Your task to perform on an android device: Open Google Chrome and click the shortcut for Amazon.com Image 0: 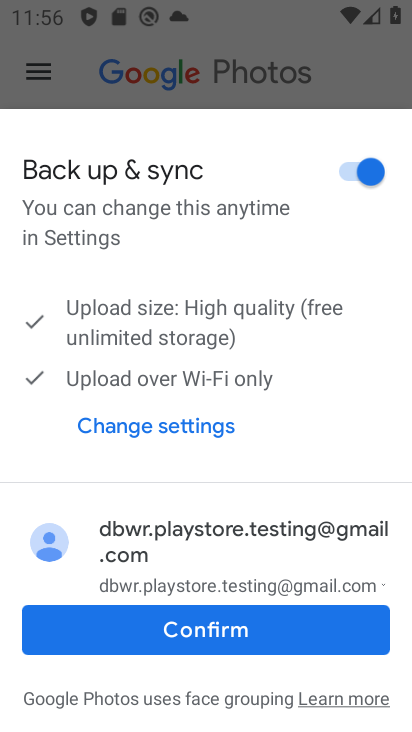
Step 0: press home button
Your task to perform on an android device: Open Google Chrome and click the shortcut for Amazon.com Image 1: 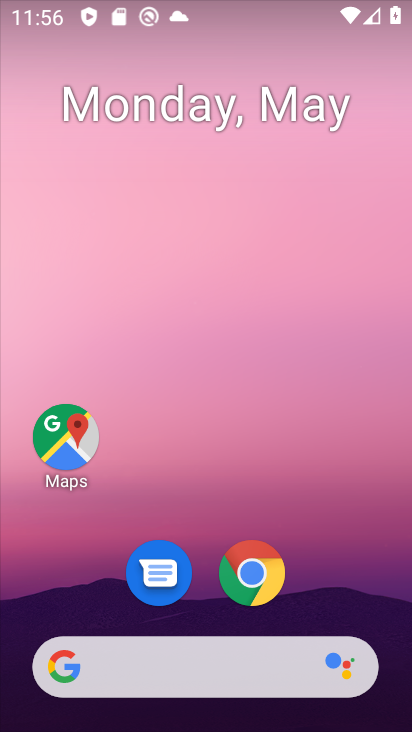
Step 1: drag from (366, 528) to (354, 72)
Your task to perform on an android device: Open Google Chrome and click the shortcut for Amazon.com Image 2: 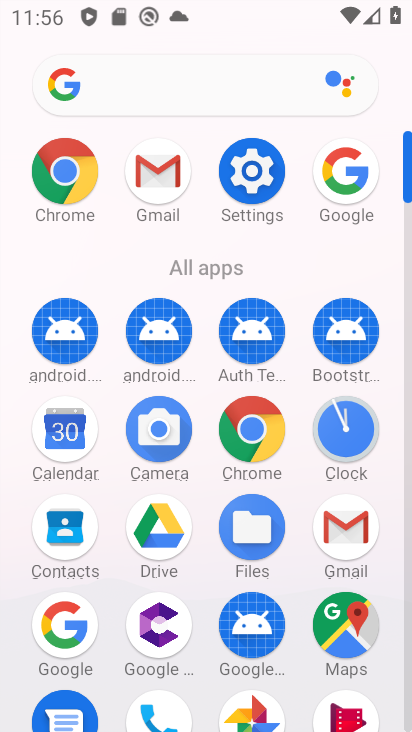
Step 2: click (50, 148)
Your task to perform on an android device: Open Google Chrome and click the shortcut for Amazon.com Image 3: 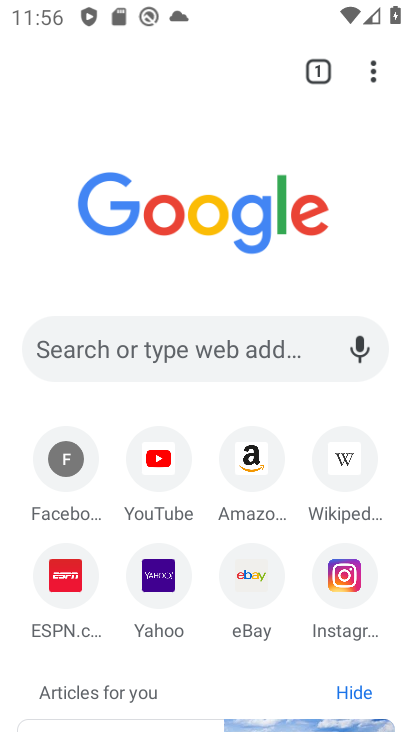
Step 3: click (238, 449)
Your task to perform on an android device: Open Google Chrome and click the shortcut for Amazon.com Image 4: 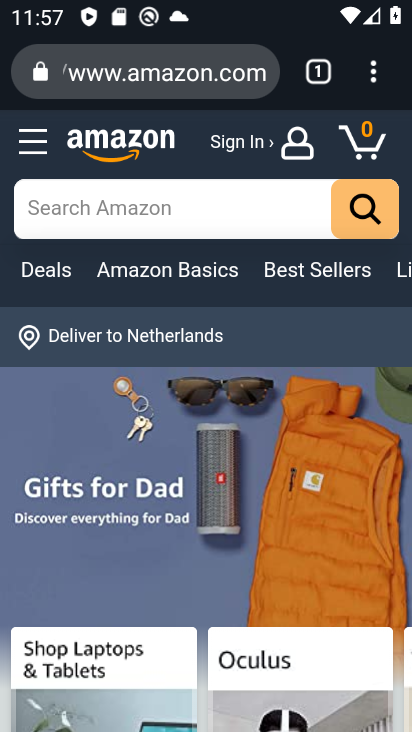
Step 4: drag from (367, 74) to (227, 440)
Your task to perform on an android device: Open Google Chrome and click the shortcut for Amazon.com Image 5: 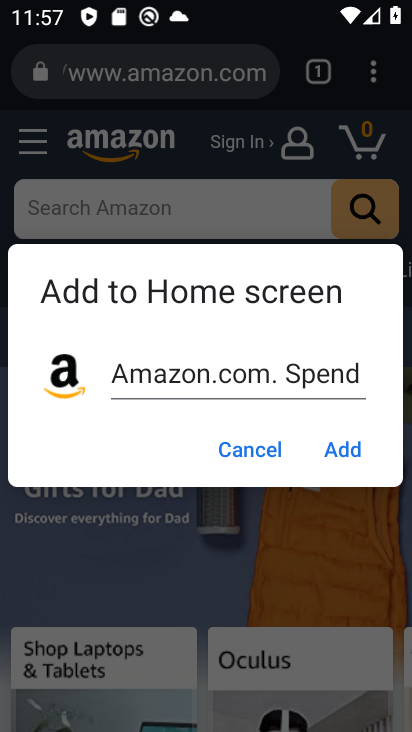
Step 5: click (335, 431)
Your task to perform on an android device: Open Google Chrome and click the shortcut for Amazon.com Image 6: 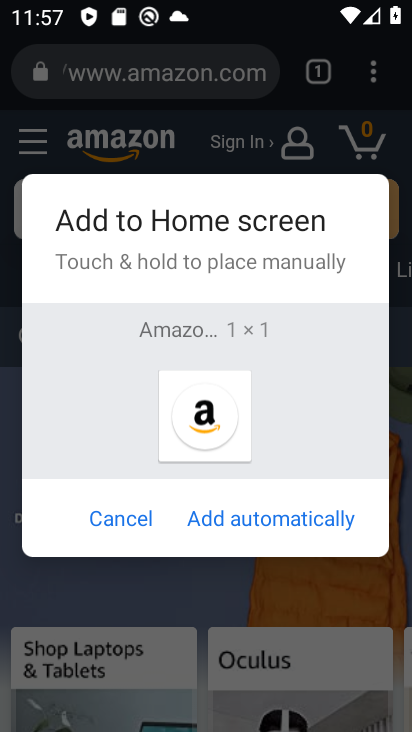
Step 6: click (260, 530)
Your task to perform on an android device: Open Google Chrome and click the shortcut for Amazon.com Image 7: 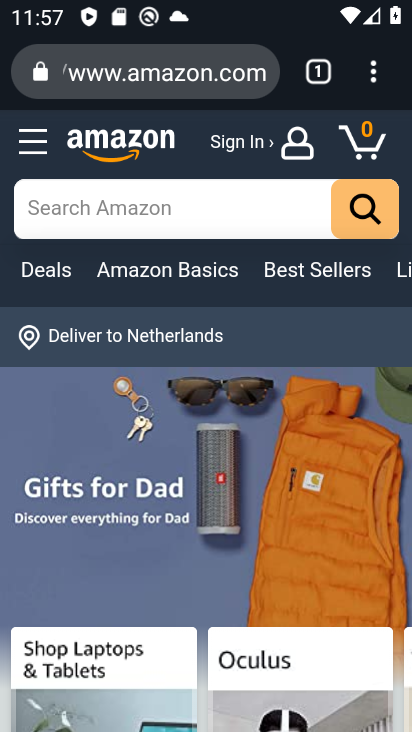
Step 7: task complete